Your task to perform on an android device: What's on my calendar today? Image 0: 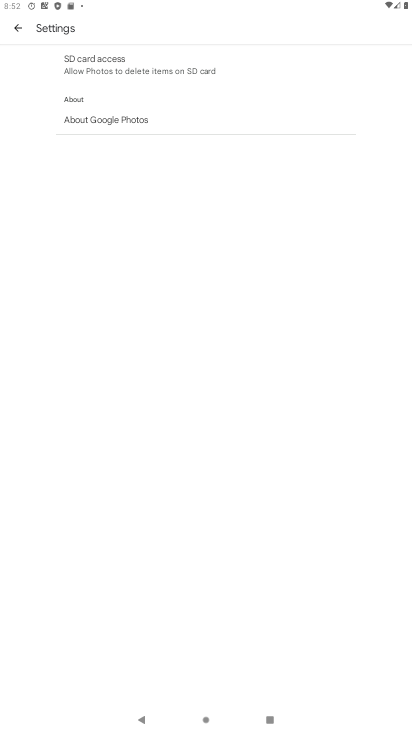
Step 0: press home button
Your task to perform on an android device: What's on my calendar today? Image 1: 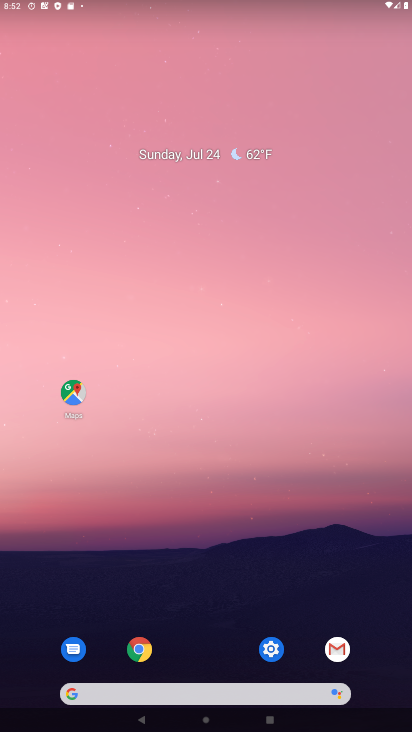
Step 1: drag from (270, 690) to (167, 110)
Your task to perform on an android device: What's on my calendar today? Image 2: 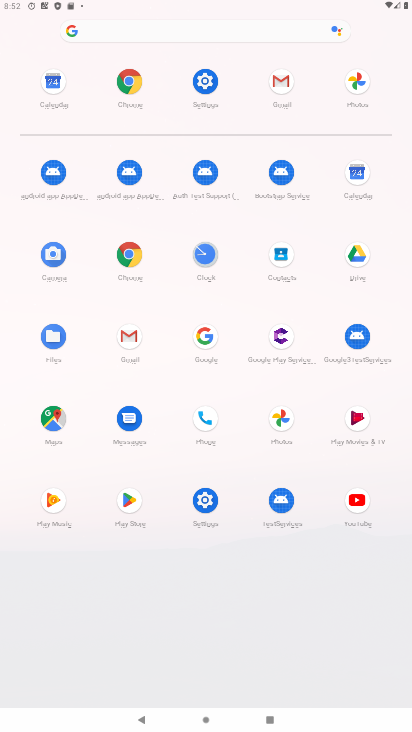
Step 2: click (358, 171)
Your task to perform on an android device: What's on my calendar today? Image 3: 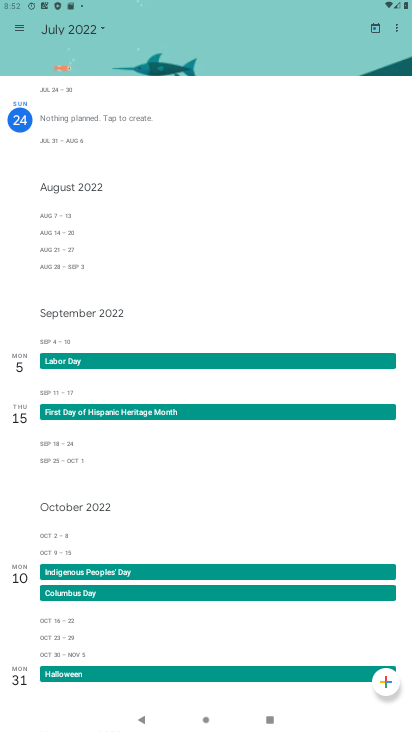
Step 3: click (15, 21)
Your task to perform on an android device: What's on my calendar today? Image 4: 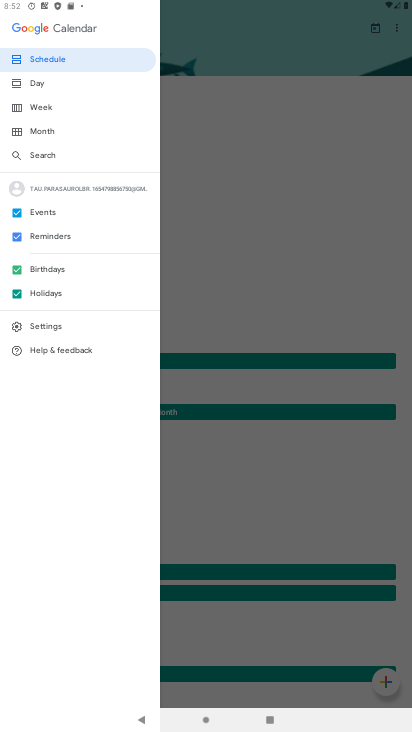
Step 4: click (53, 325)
Your task to perform on an android device: What's on my calendar today? Image 5: 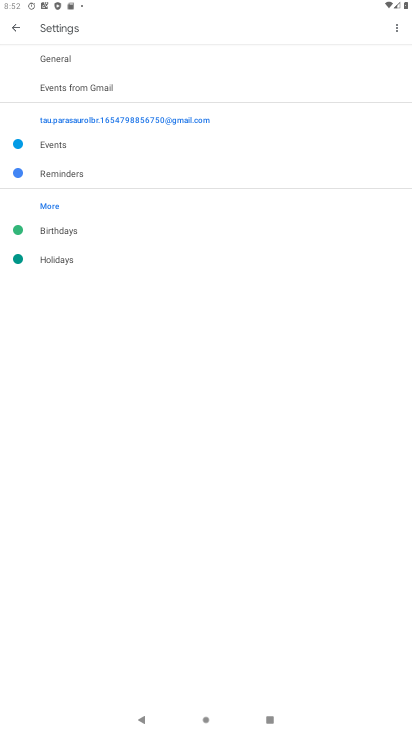
Step 5: click (10, 29)
Your task to perform on an android device: What's on my calendar today? Image 6: 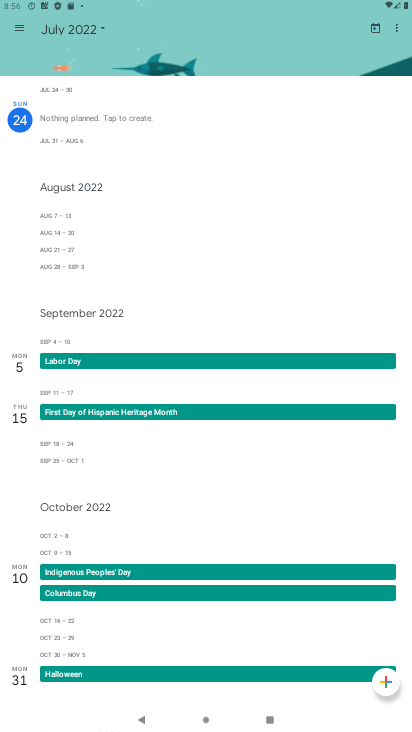
Step 6: task complete